Your task to perform on an android device: Check the weather Image 0: 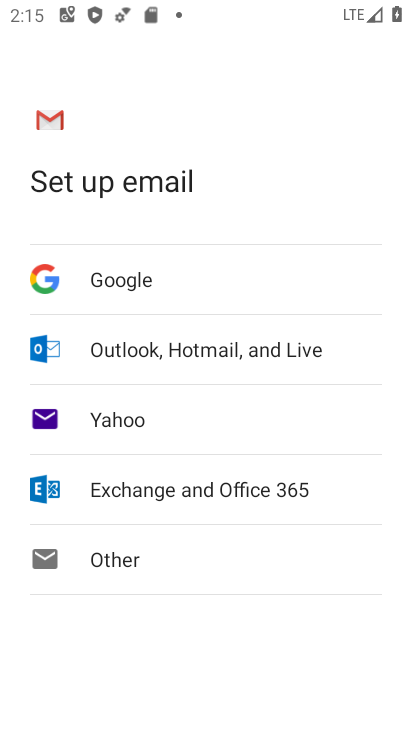
Step 0: press home button
Your task to perform on an android device: Check the weather Image 1: 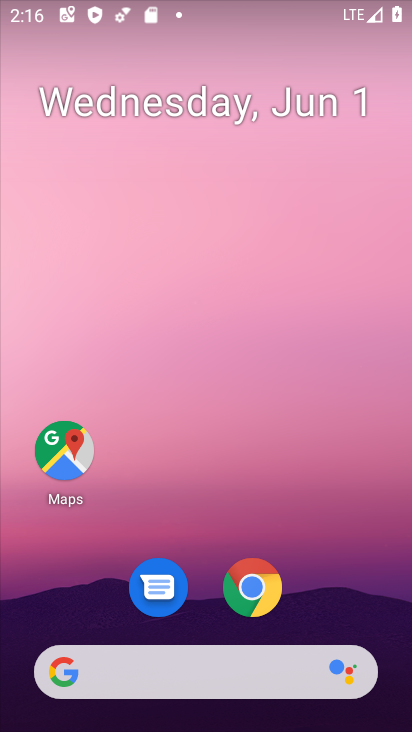
Step 1: drag from (241, 693) to (236, 127)
Your task to perform on an android device: Check the weather Image 2: 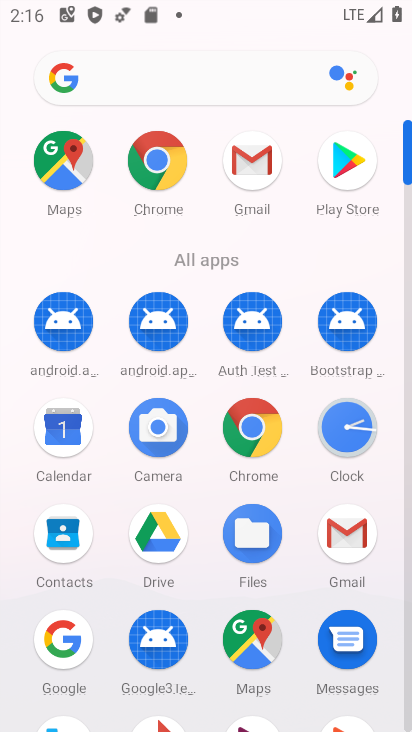
Step 2: click (80, 646)
Your task to perform on an android device: Check the weather Image 3: 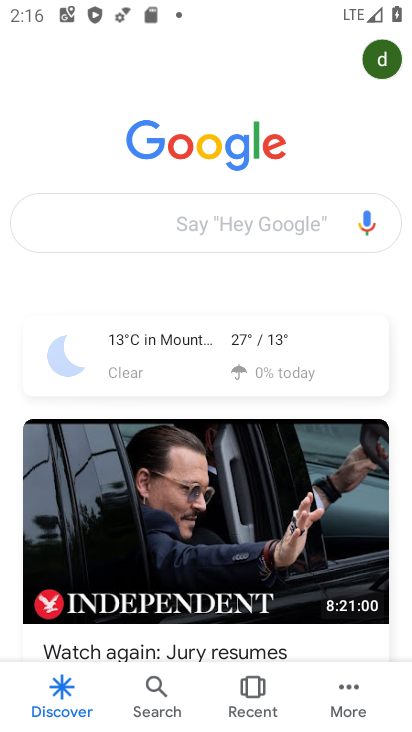
Step 3: drag from (163, 530) to (153, 431)
Your task to perform on an android device: Check the weather Image 4: 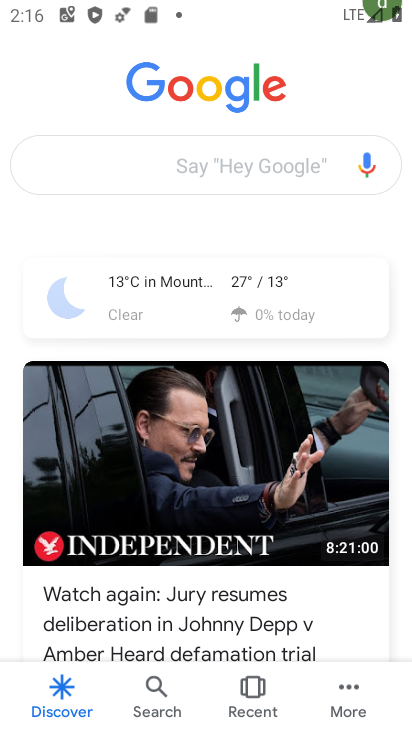
Step 4: click (82, 305)
Your task to perform on an android device: Check the weather Image 5: 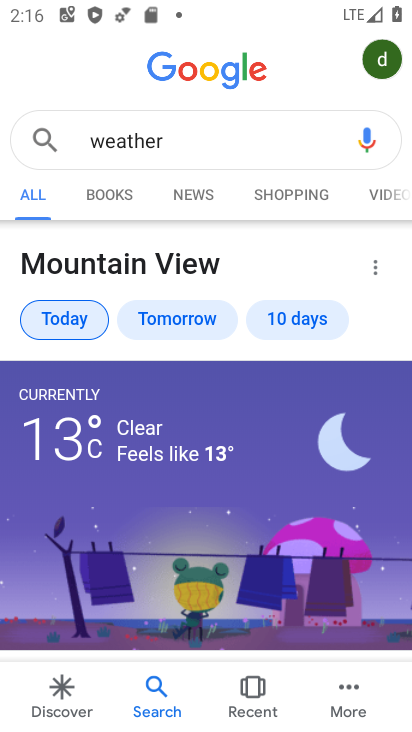
Step 5: task complete